Your task to perform on an android device: Open accessibility settings Image 0: 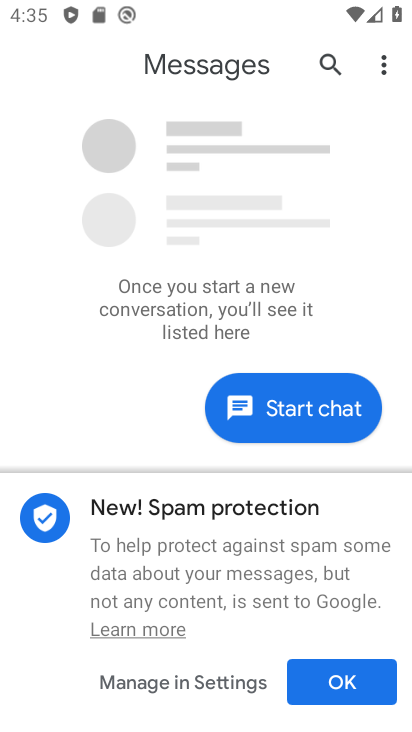
Step 0: press home button
Your task to perform on an android device: Open accessibility settings Image 1: 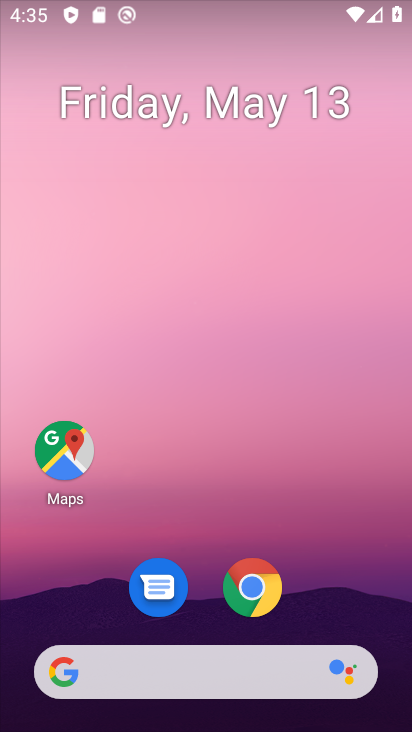
Step 1: drag from (330, 593) to (301, 90)
Your task to perform on an android device: Open accessibility settings Image 2: 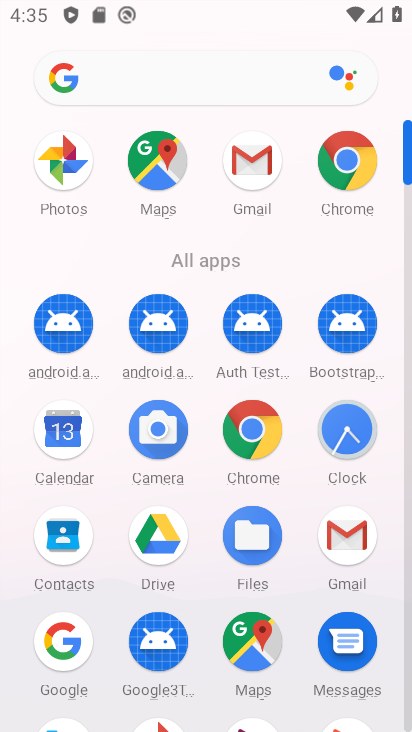
Step 2: drag from (199, 284) to (209, 14)
Your task to perform on an android device: Open accessibility settings Image 3: 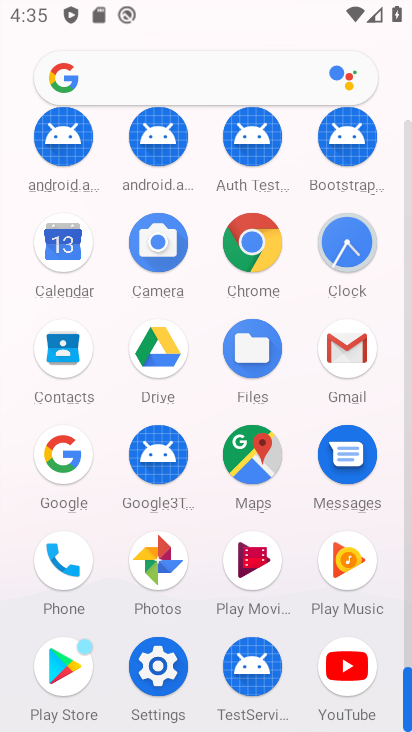
Step 3: click (148, 671)
Your task to perform on an android device: Open accessibility settings Image 4: 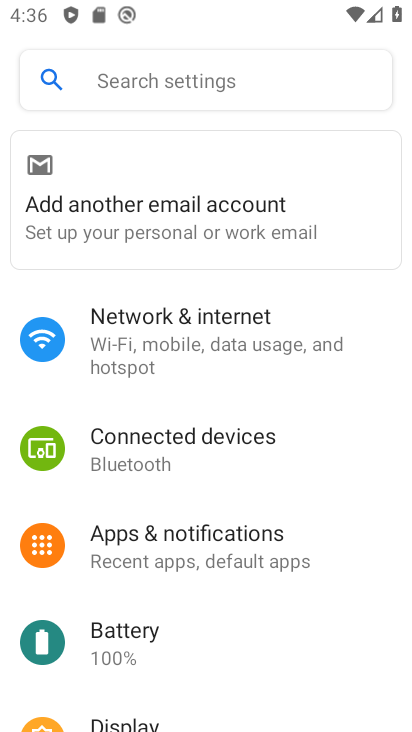
Step 4: drag from (274, 632) to (316, 242)
Your task to perform on an android device: Open accessibility settings Image 5: 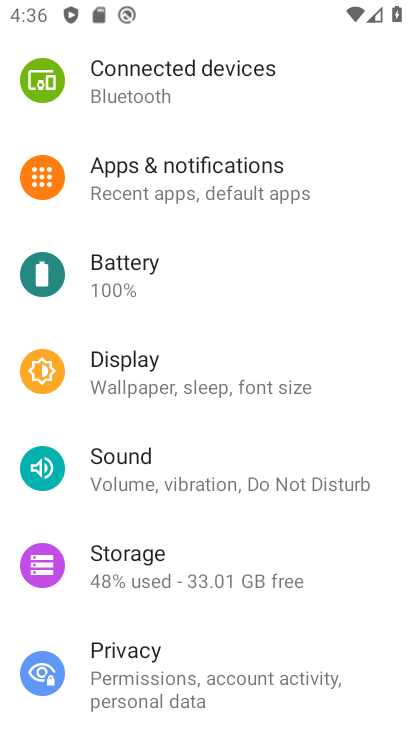
Step 5: drag from (341, 704) to (312, 179)
Your task to perform on an android device: Open accessibility settings Image 6: 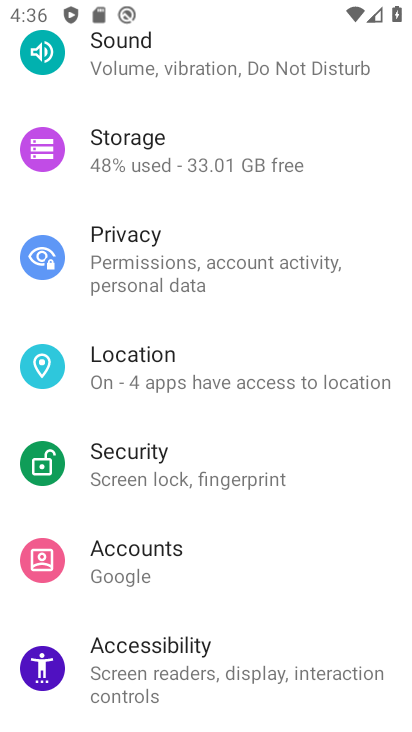
Step 6: click (171, 647)
Your task to perform on an android device: Open accessibility settings Image 7: 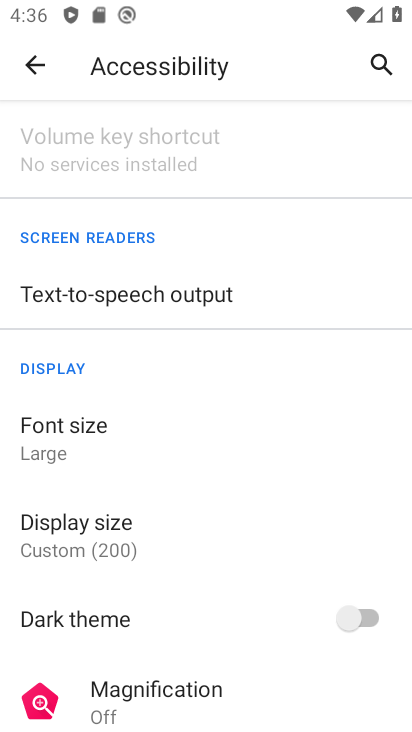
Step 7: task complete